Your task to perform on an android device: Show me recent news Image 0: 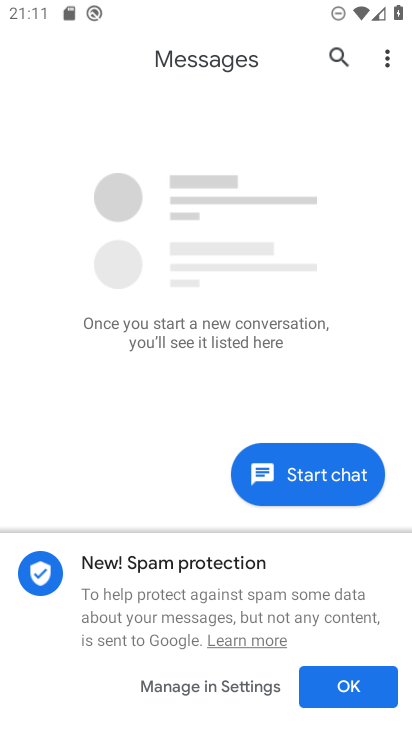
Step 0: press home button
Your task to perform on an android device: Show me recent news Image 1: 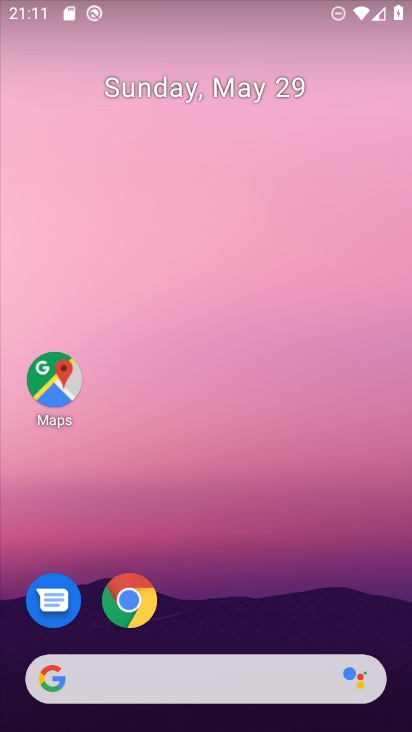
Step 1: drag from (351, 582) to (363, 69)
Your task to perform on an android device: Show me recent news Image 2: 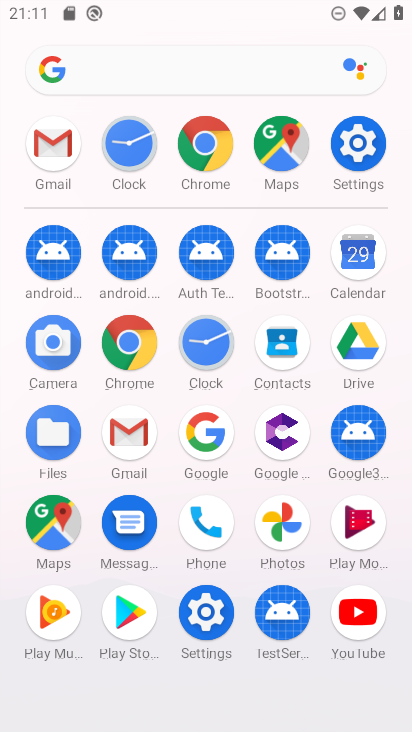
Step 2: click (129, 343)
Your task to perform on an android device: Show me recent news Image 3: 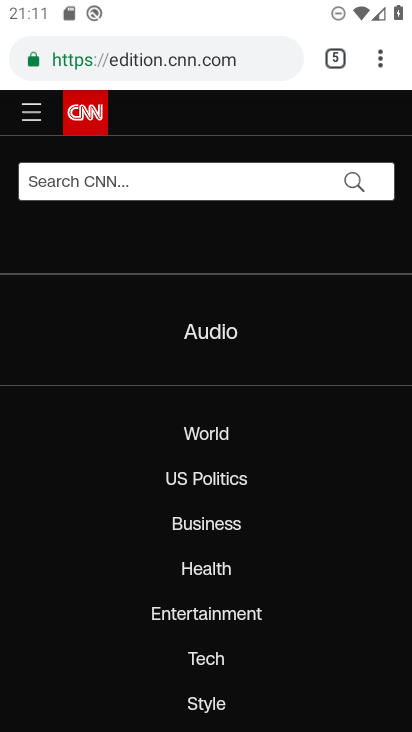
Step 3: click (155, 62)
Your task to perform on an android device: Show me recent news Image 4: 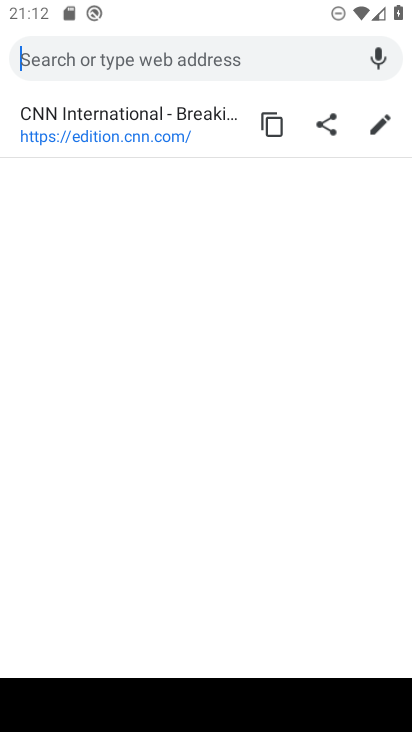
Step 4: type "recent news"
Your task to perform on an android device: Show me recent news Image 5: 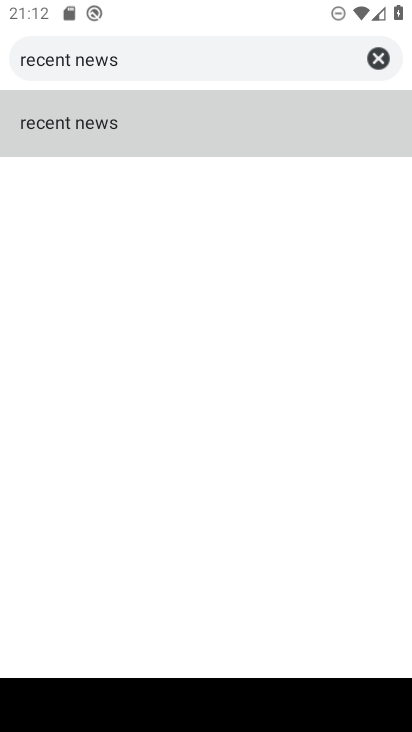
Step 5: click (116, 147)
Your task to perform on an android device: Show me recent news Image 6: 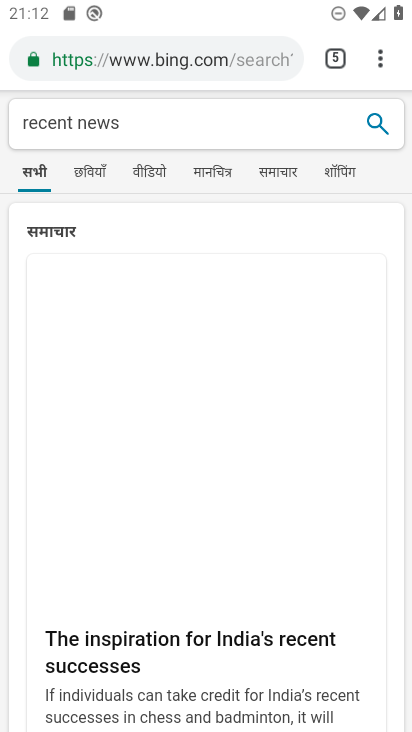
Step 6: task complete